Your task to perform on an android device: open sync settings in chrome Image 0: 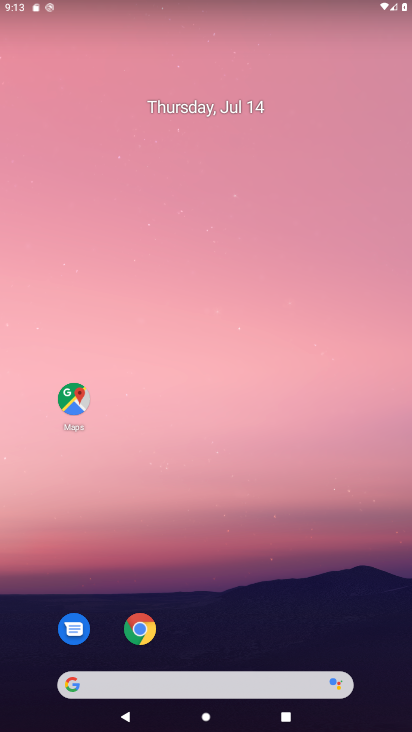
Step 0: drag from (243, 596) to (216, 1)
Your task to perform on an android device: open sync settings in chrome Image 1: 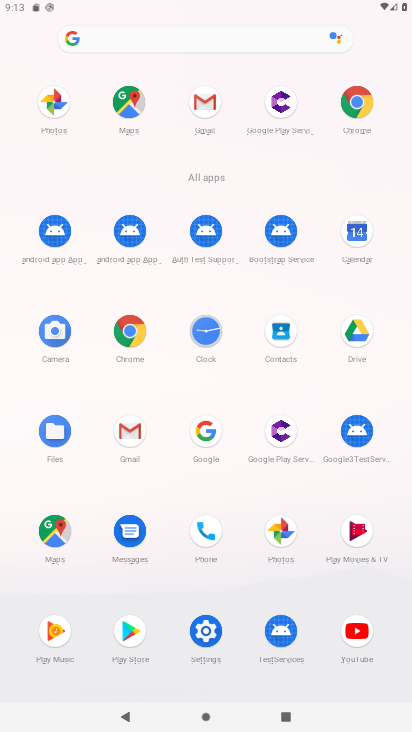
Step 1: click (132, 318)
Your task to perform on an android device: open sync settings in chrome Image 2: 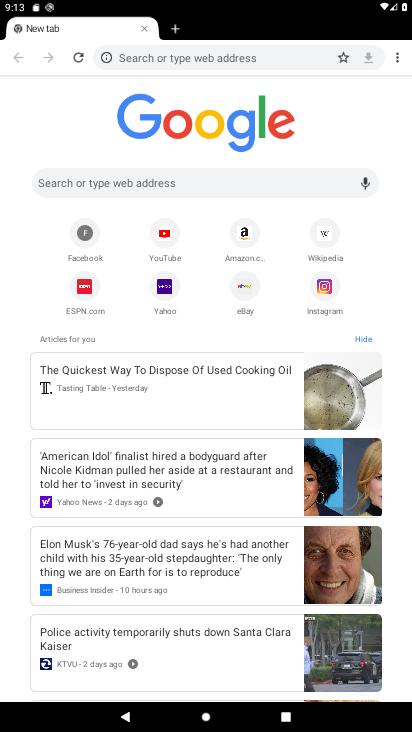
Step 2: drag from (391, 56) to (296, 274)
Your task to perform on an android device: open sync settings in chrome Image 3: 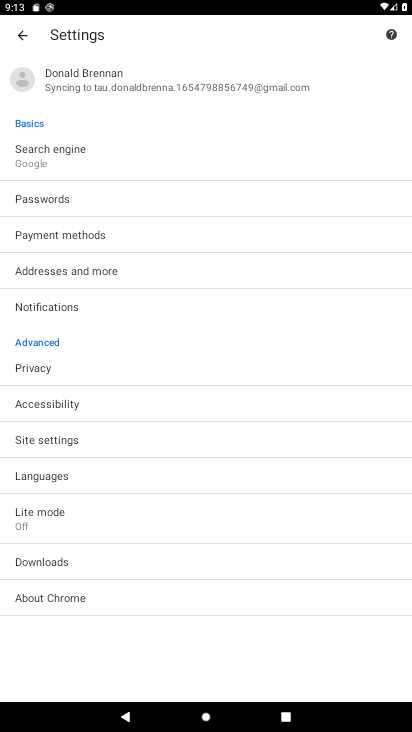
Step 3: click (60, 87)
Your task to perform on an android device: open sync settings in chrome Image 4: 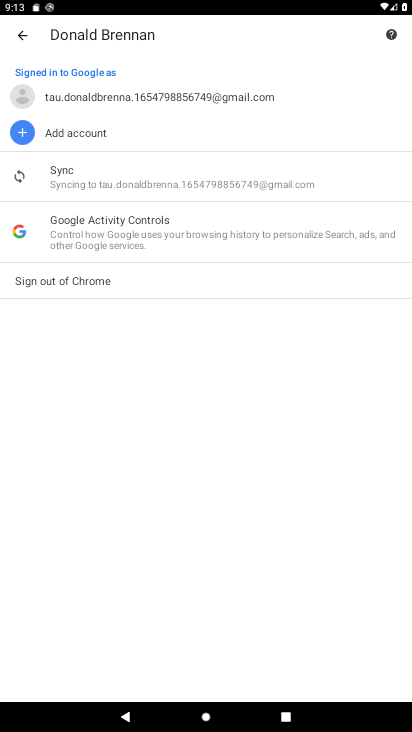
Step 4: click (64, 177)
Your task to perform on an android device: open sync settings in chrome Image 5: 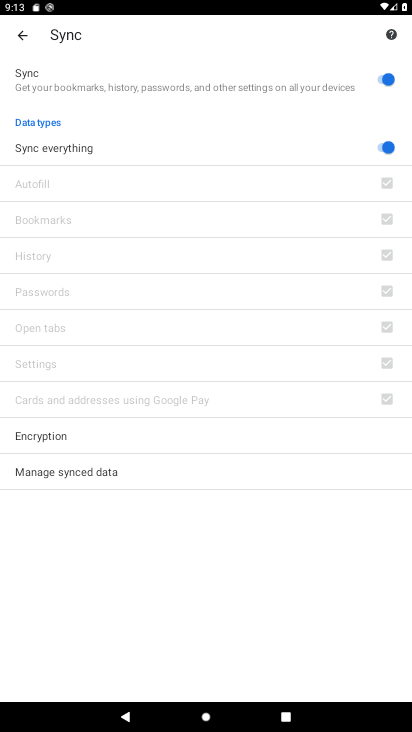
Step 5: task complete